Your task to perform on an android device: Open Amazon Image 0: 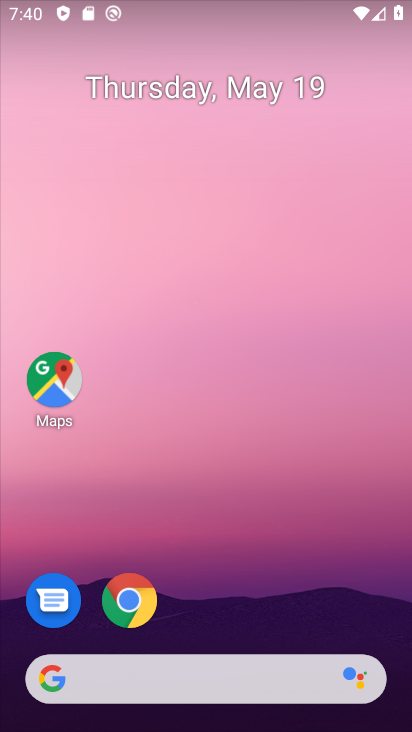
Step 0: click (130, 600)
Your task to perform on an android device: Open Amazon Image 1: 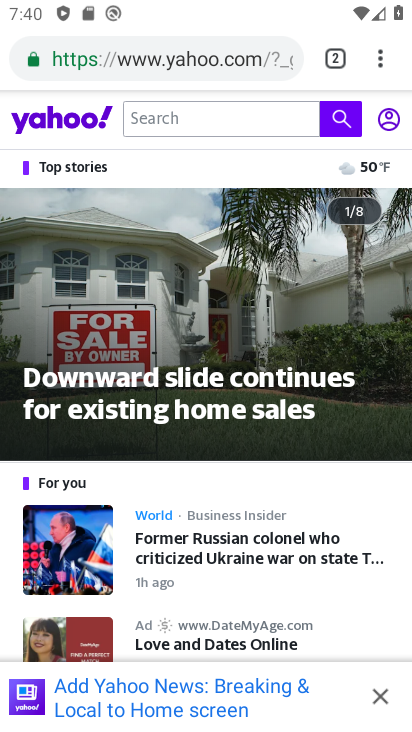
Step 1: click (150, 59)
Your task to perform on an android device: Open Amazon Image 2: 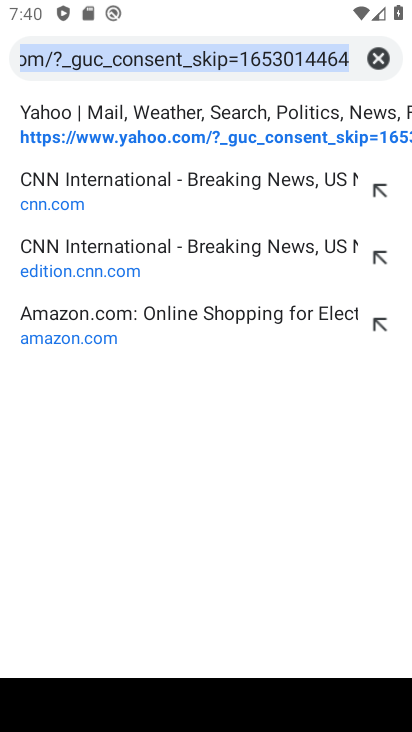
Step 2: click (61, 337)
Your task to perform on an android device: Open Amazon Image 3: 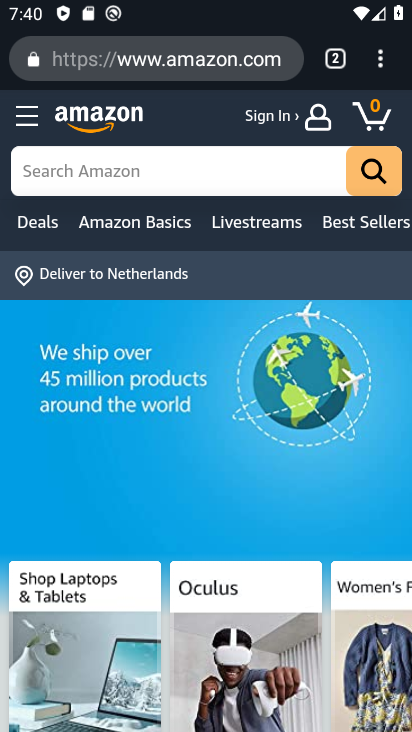
Step 3: task complete